Your task to perform on an android device: see tabs open on other devices in the chrome app Image 0: 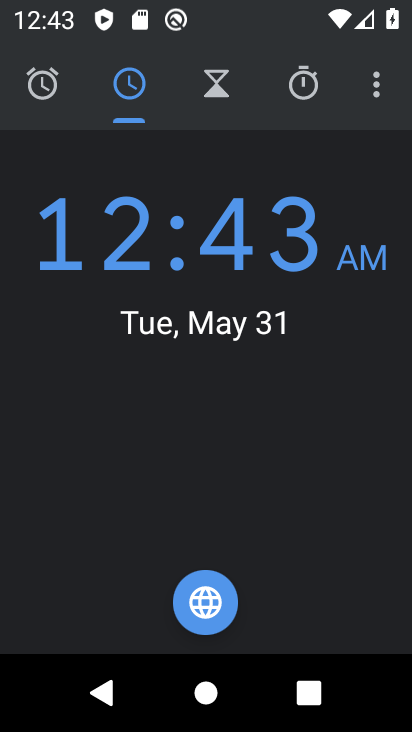
Step 0: press home button
Your task to perform on an android device: see tabs open on other devices in the chrome app Image 1: 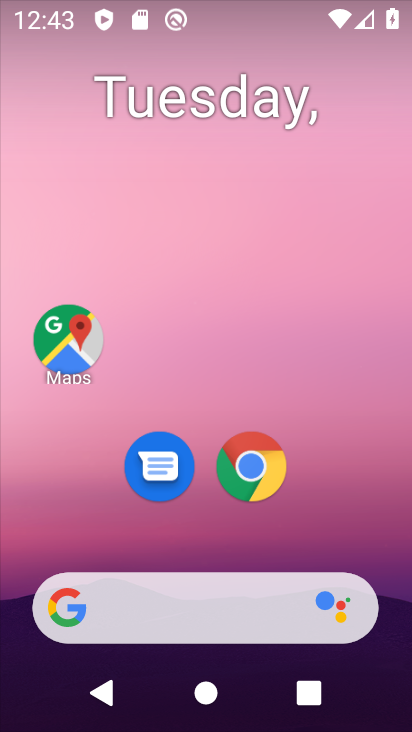
Step 1: click (239, 471)
Your task to perform on an android device: see tabs open on other devices in the chrome app Image 2: 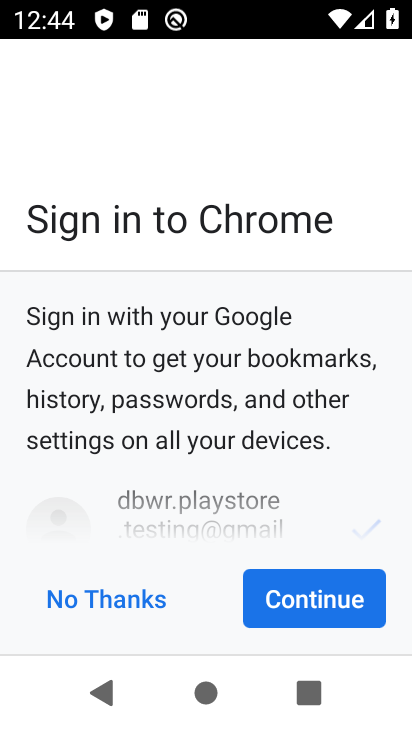
Step 2: click (297, 585)
Your task to perform on an android device: see tabs open on other devices in the chrome app Image 3: 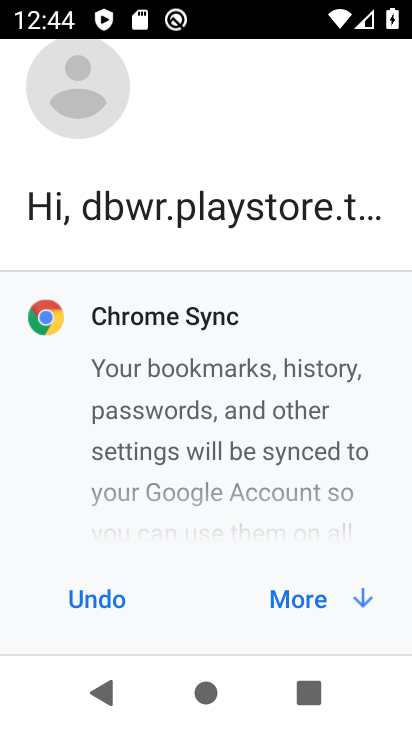
Step 3: click (329, 602)
Your task to perform on an android device: see tabs open on other devices in the chrome app Image 4: 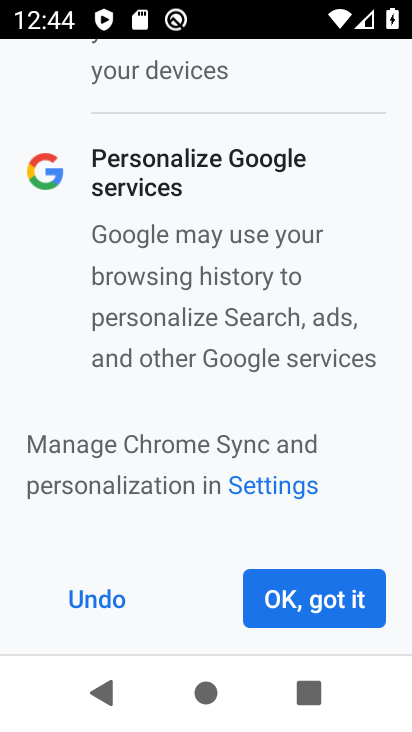
Step 4: click (285, 608)
Your task to perform on an android device: see tabs open on other devices in the chrome app Image 5: 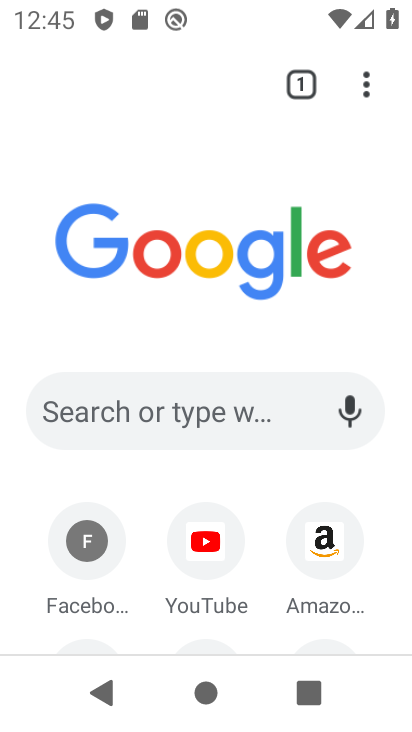
Step 5: click (362, 84)
Your task to perform on an android device: see tabs open on other devices in the chrome app Image 6: 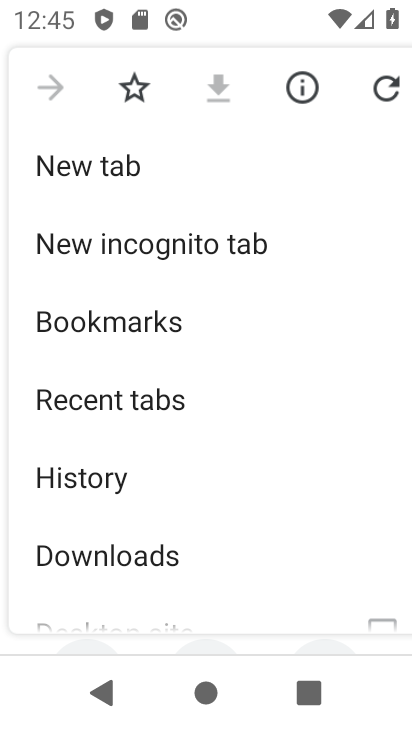
Step 6: click (219, 392)
Your task to perform on an android device: see tabs open on other devices in the chrome app Image 7: 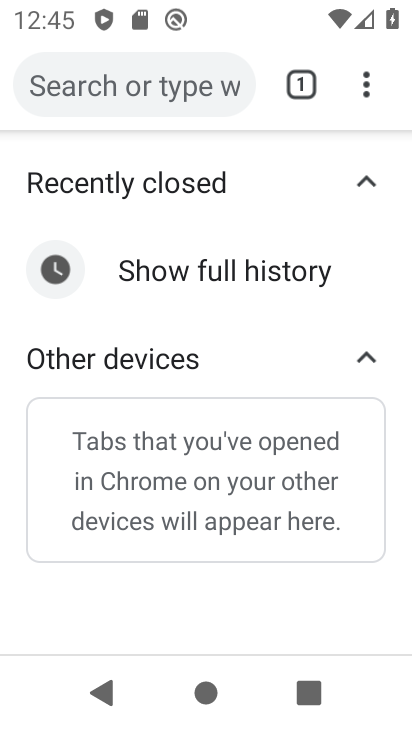
Step 7: task complete